Your task to perform on an android device: Open Chrome and go to the settings page Image 0: 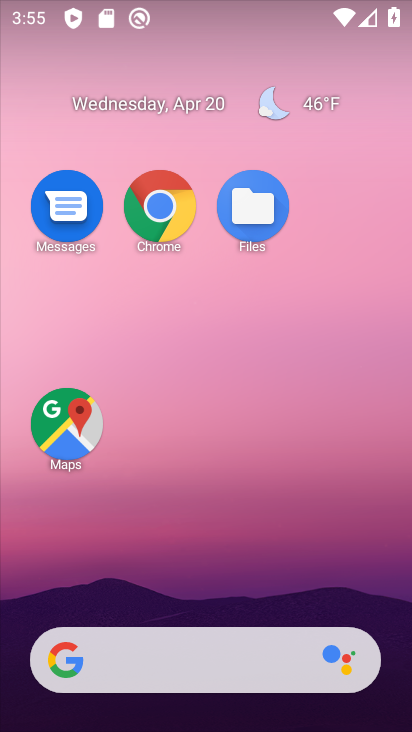
Step 0: click (175, 191)
Your task to perform on an android device: Open Chrome and go to the settings page Image 1: 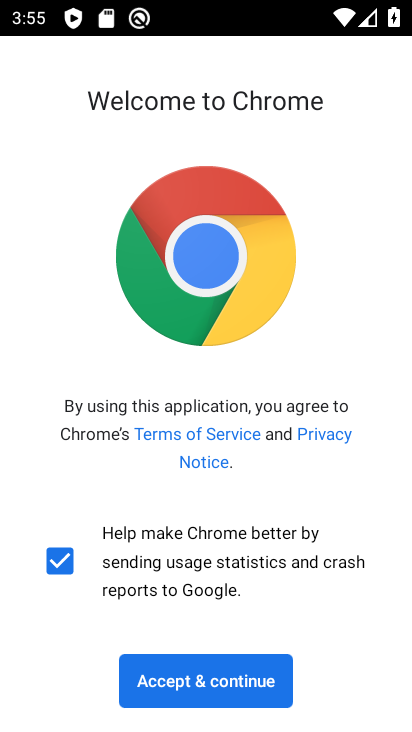
Step 1: click (254, 693)
Your task to perform on an android device: Open Chrome and go to the settings page Image 2: 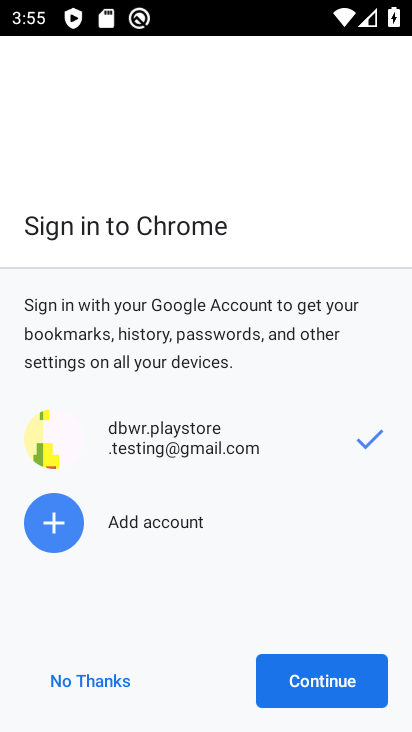
Step 2: click (308, 675)
Your task to perform on an android device: Open Chrome and go to the settings page Image 3: 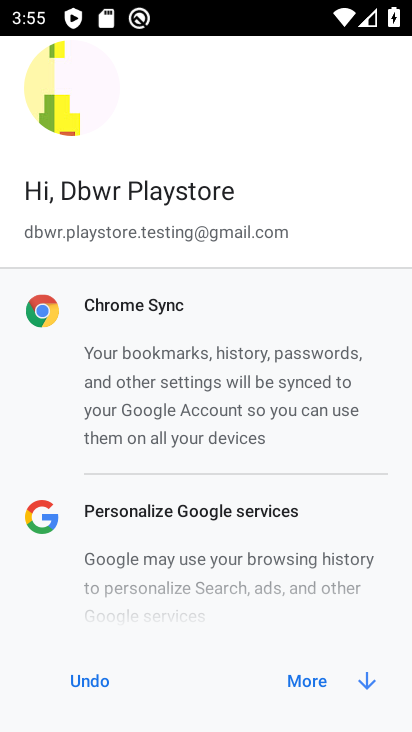
Step 3: click (308, 675)
Your task to perform on an android device: Open Chrome and go to the settings page Image 4: 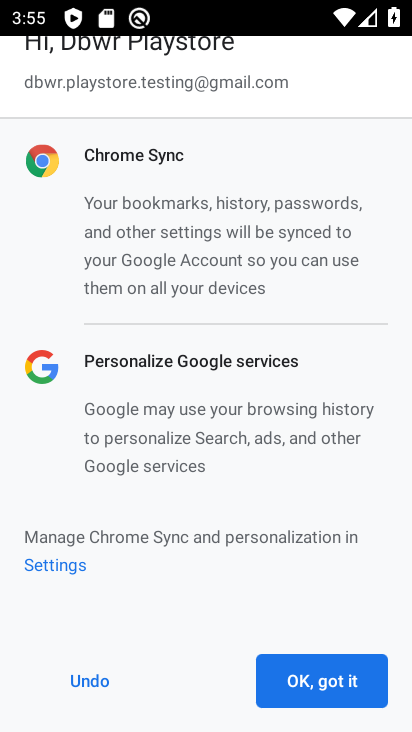
Step 4: click (311, 673)
Your task to perform on an android device: Open Chrome and go to the settings page Image 5: 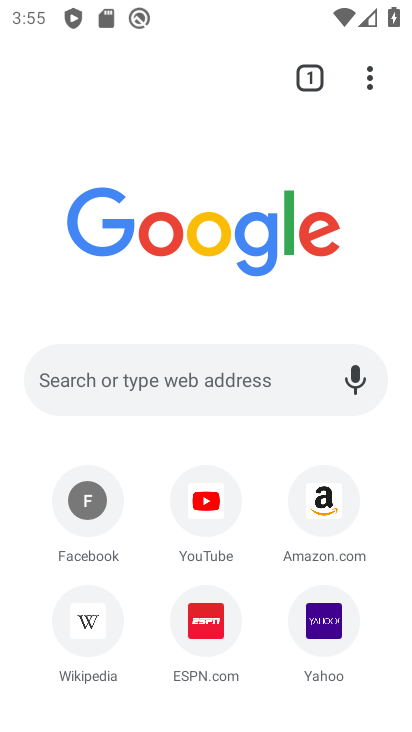
Step 5: click (374, 85)
Your task to perform on an android device: Open Chrome and go to the settings page Image 6: 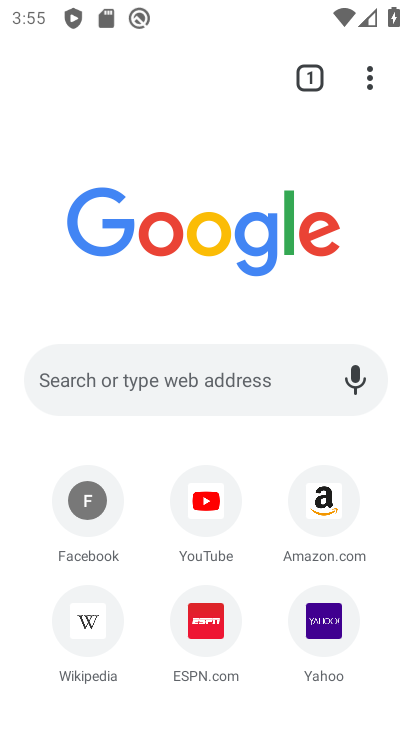
Step 6: click (372, 73)
Your task to perform on an android device: Open Chrome and go to the settings page Image 7: 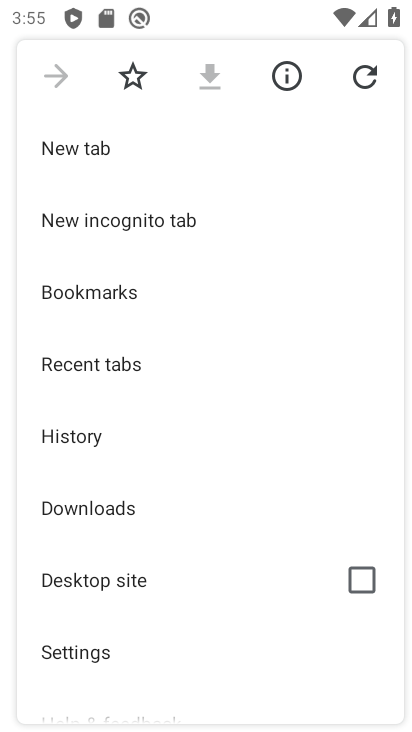
Step 7: click (91, 644)
Your task to perform on an android device: Open Chrome and go to the settings page Image 8: 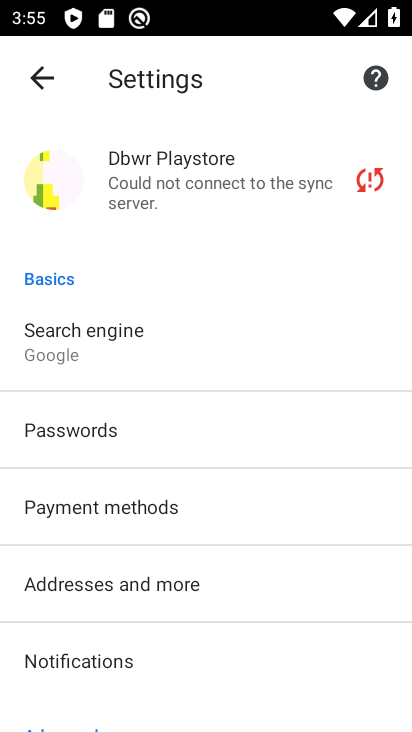
Step 8: task complete